Your task to perform on an android device: delete browsing data in the chrome app Image 0: 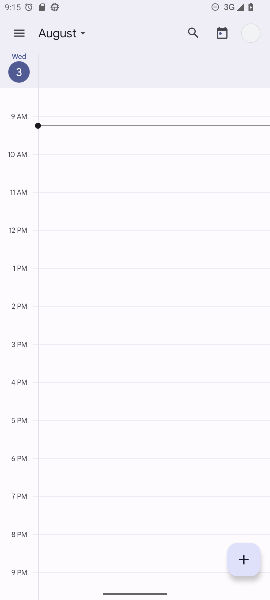
Step 0: press home button
Your task to perform on an android device: delete browsing data in the chrome app Image 1: 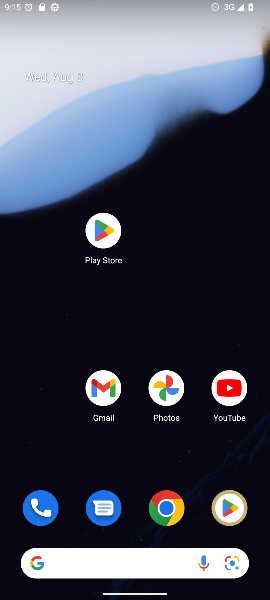
Step 1: click (174, 481)
Your task to perform on an android device: delete browsing data in the chrome app Image 2: 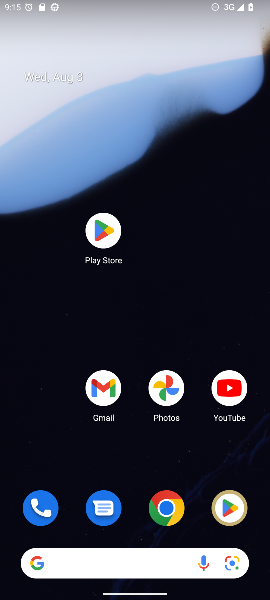
Step 2: click (166, 516)
Your task to perform on an android device: delete browsing data in the chrome app Image 3: 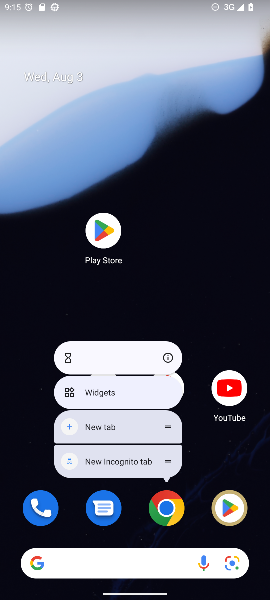
Step 3: click (166, 516)
Your task to perform on an android device: delete browsing data in the chrome app Image 4: 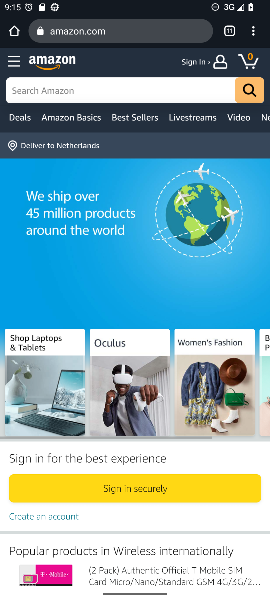
Step 4: click (248, 37)
Your task to perform on an android device: delete browsing data in the chrome app Image 5: 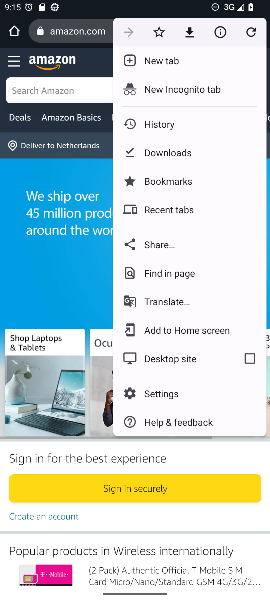
Step 5: click (181, 117)
Your task to perform on an android device: delete browsing data in the chrome app Image 6: 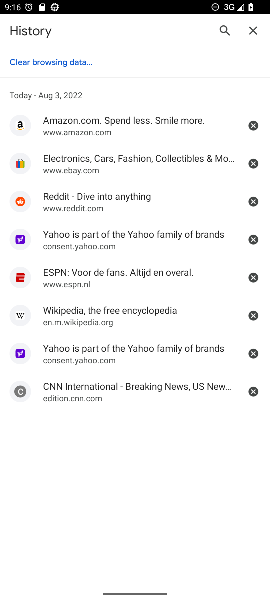
Step 6: click (43, 63)
Your task to perform on an android device: delete browsing data in the chrome app Image 7: 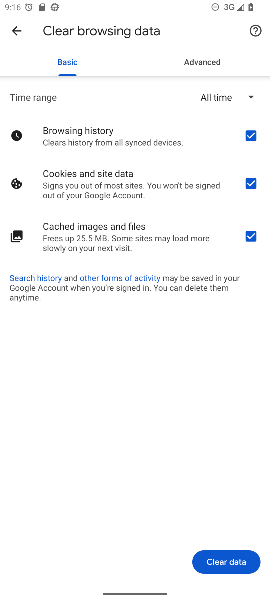
Step 7: click (236, 555)
Your task to perform on an android device: delete browsing data in the chrome app Image 8: 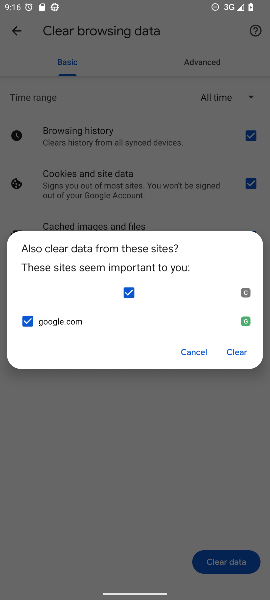
Step 8: click (240, 341)
Your task to perform on an android device: delete browsing data in the chrome app Image 9: 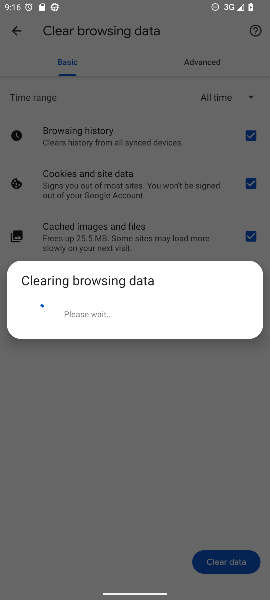
Step 9: task complete